Your task to perform on an android device: check google app version Image 0: 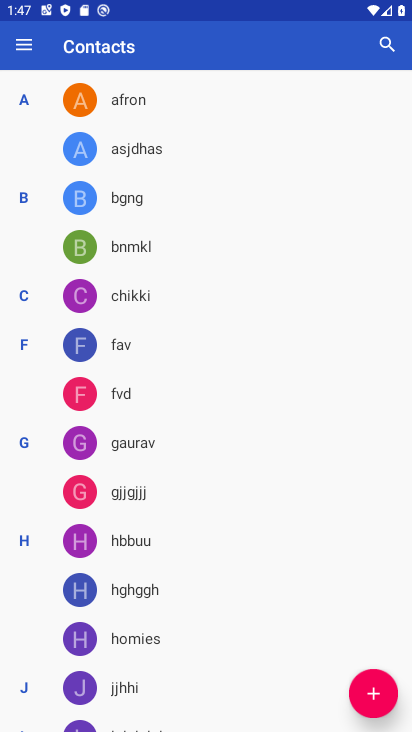
Step 0: press home button
Your task to perform on an android device: check google app version Image 1: 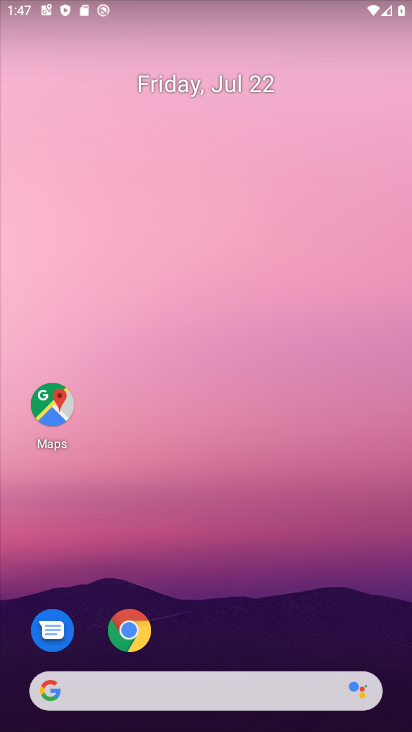
Step 1: click (50, 699)
Your task to perform on an android device: check google app version Image 2: 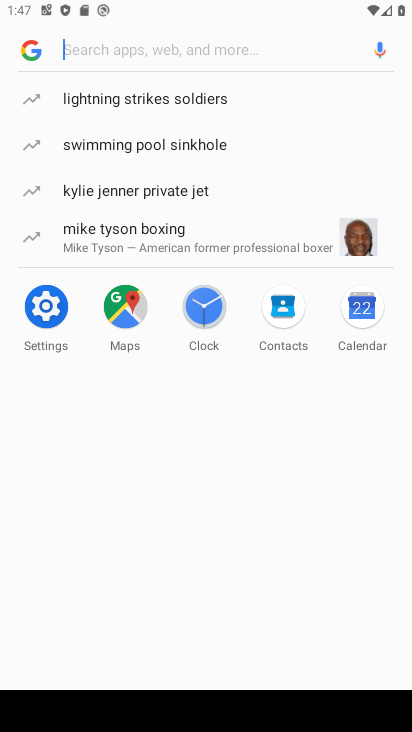
Step 2: click (30, 55)
Your task to perform on an android device: check google app version Image 3: 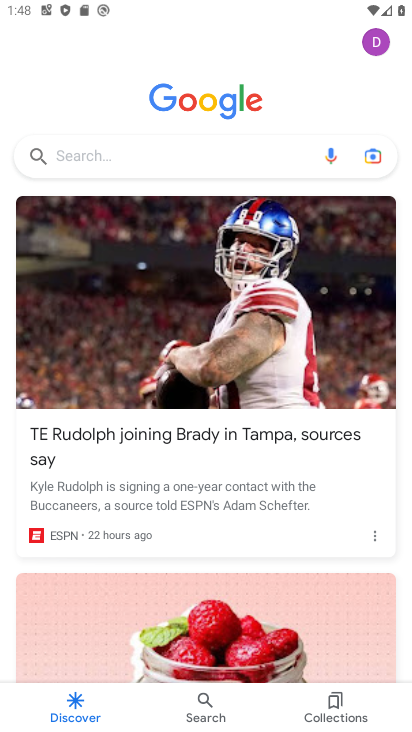
Step 3: click (378, 44)
Your task to perform on an android device: check google app version Image 4: 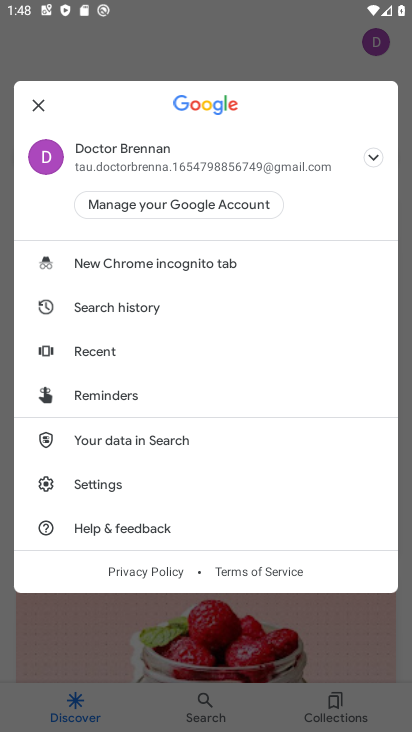
Step 4: click (107, 482)
Your task to perform on an android device: check google app version Image 5: 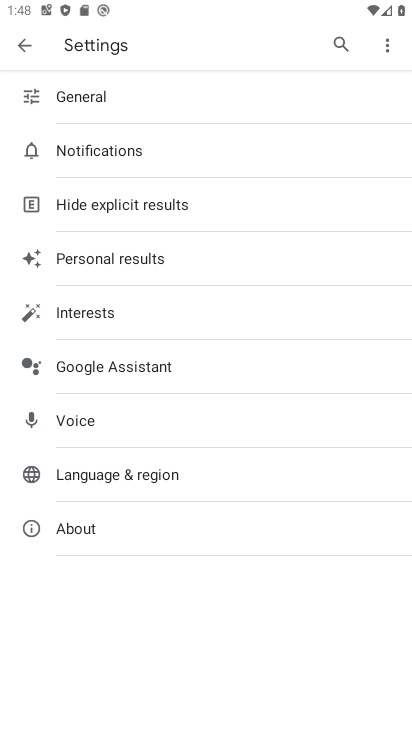
Step 5: click (80, 524)
Your task to perform on an android device: check google app version Image 6: 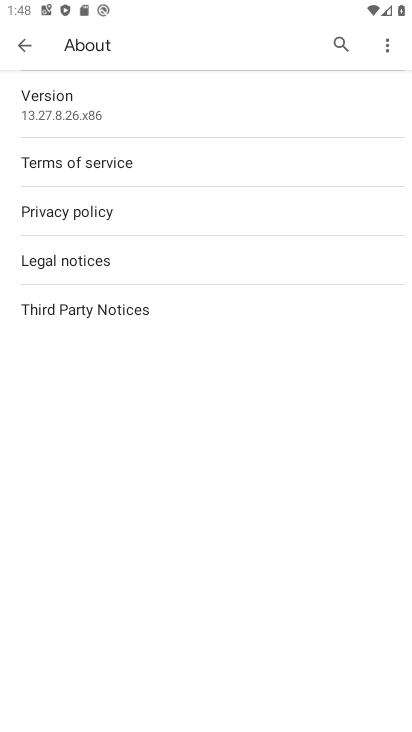
Step 6: task complete